Your task to perform on an android device: install app "Cash App" Image 0: 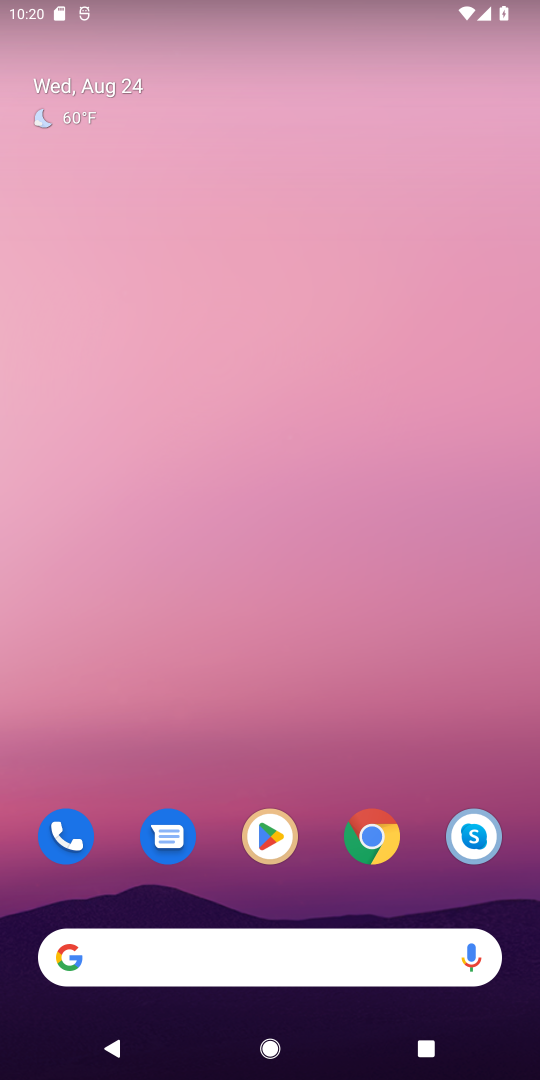
Step 0: click (274, 839)
Your task to perform on an android device: install app "Cash App" Image 1: 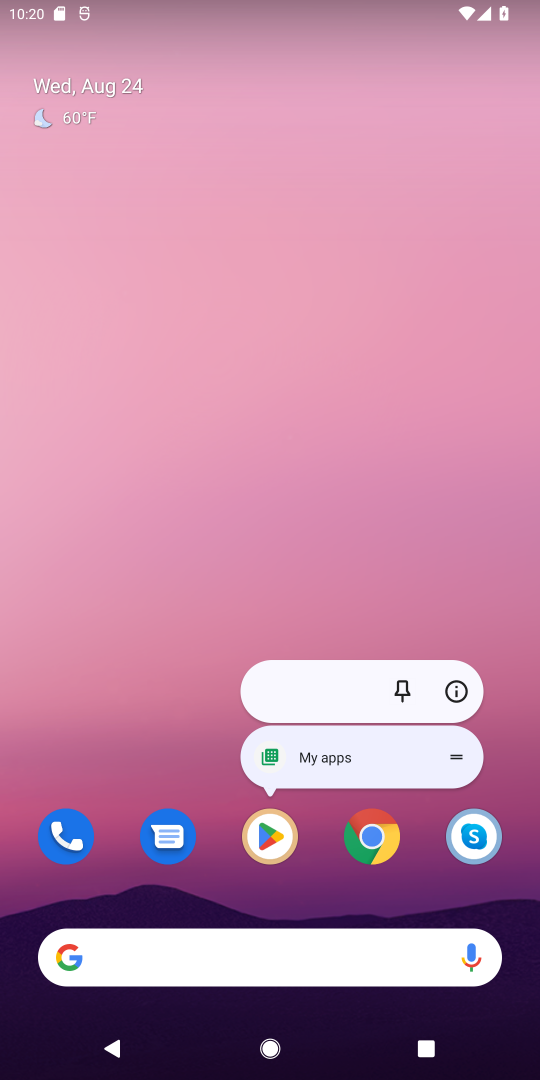
Step 1: click (274, 839)
Your task to perform on an android device: install app "Cash App" Image 2: 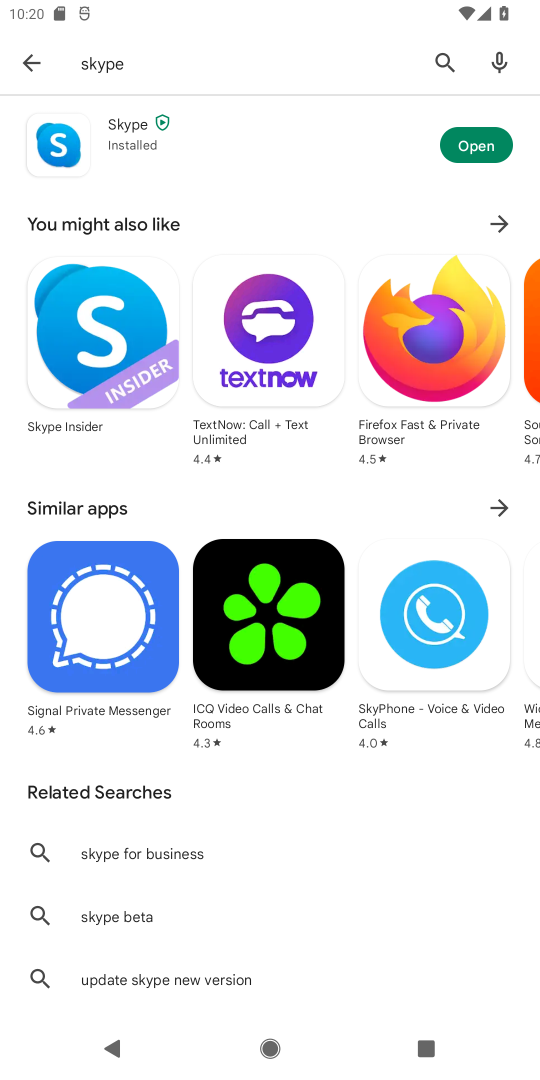
Step 2: click (439, 65)
Your task to perform on an android device: install app "Cash App" Image 3: 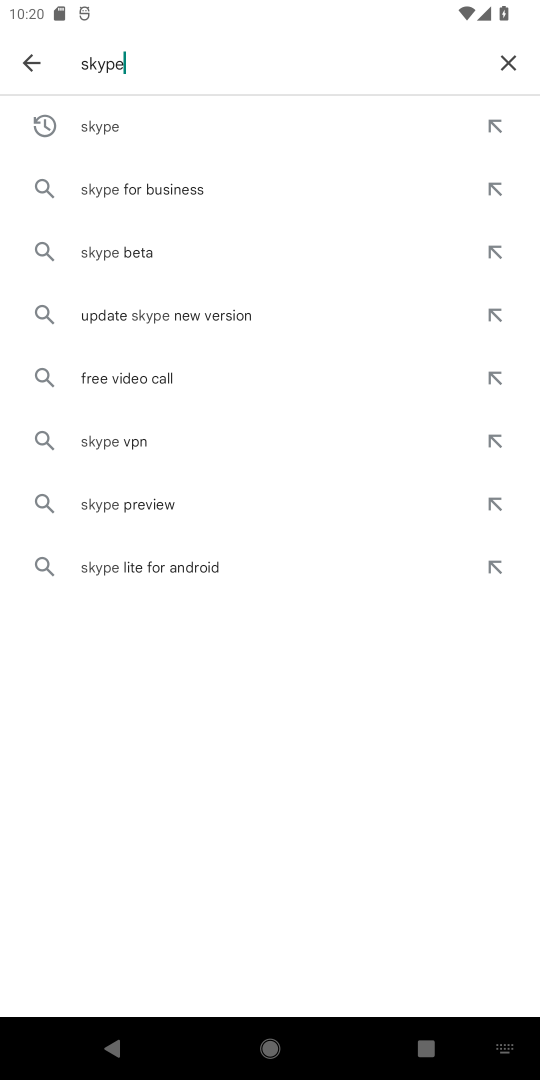
Step 3: click (510, 64)
Your task to perform on an android device: install app "Cash App" Image 4: 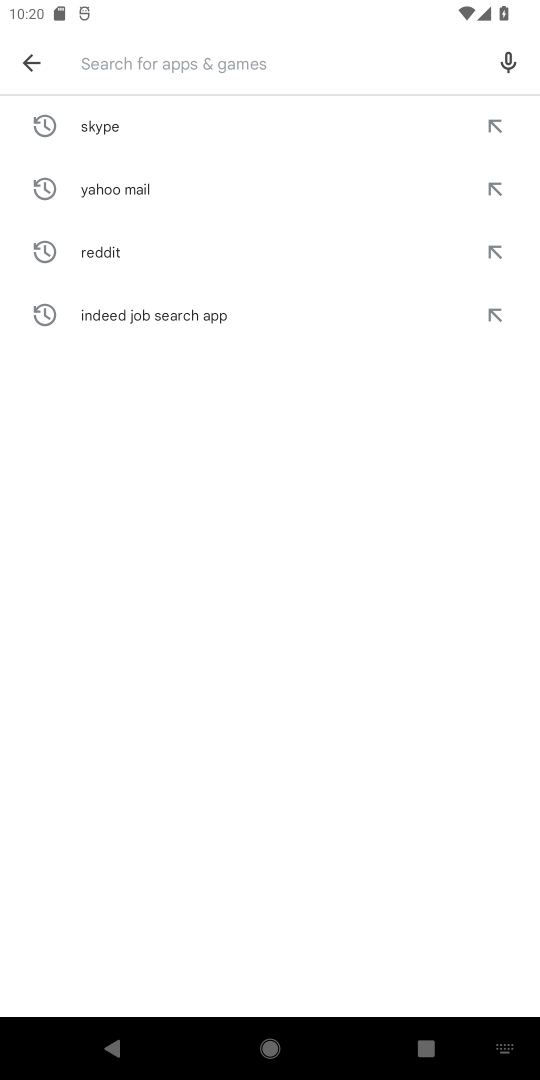
Step 4: type "Cash App"
Your task to perform on an android device: install app "Cash App" Image 5: 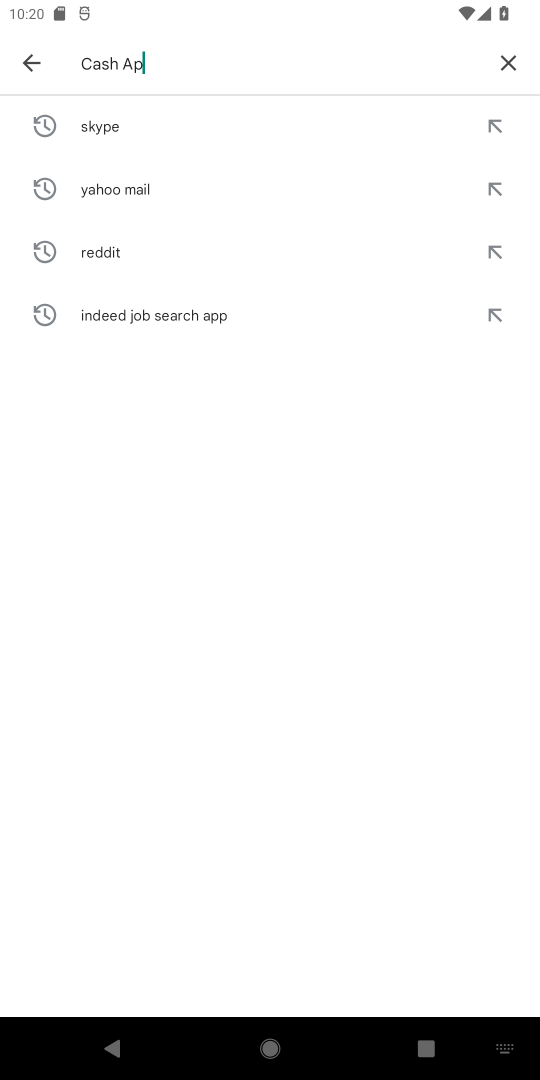
Step 5: type ""
Your task to perform on an android device: install app "Cash App" Image 6: 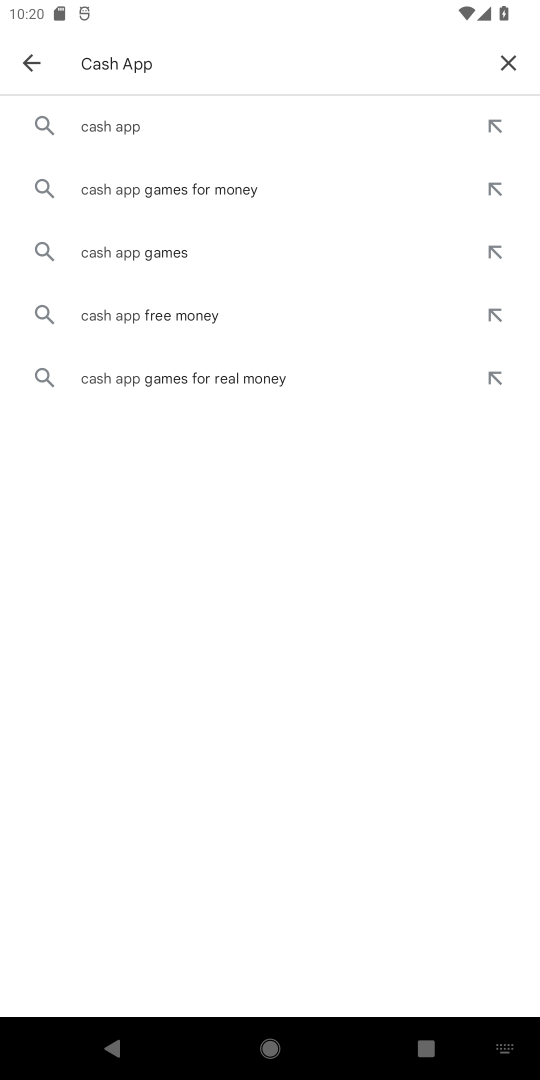
Step 6: click (159, 125)
Your task to perform on an android device: install app "Cash App" Image 7: 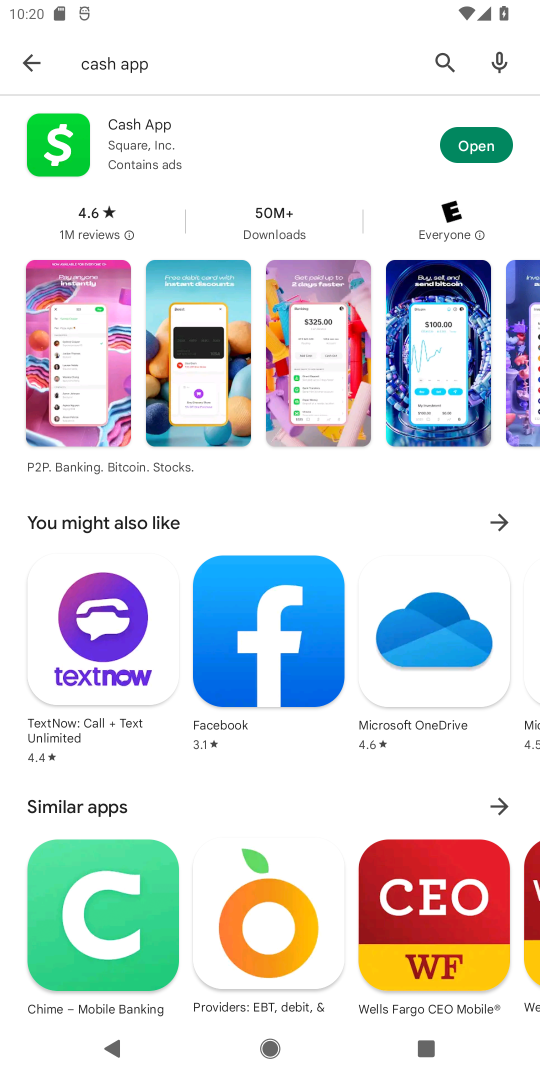
Step 7: task complete